Your task to perform on an android device: clear all cookies in the chrome app Image 0: 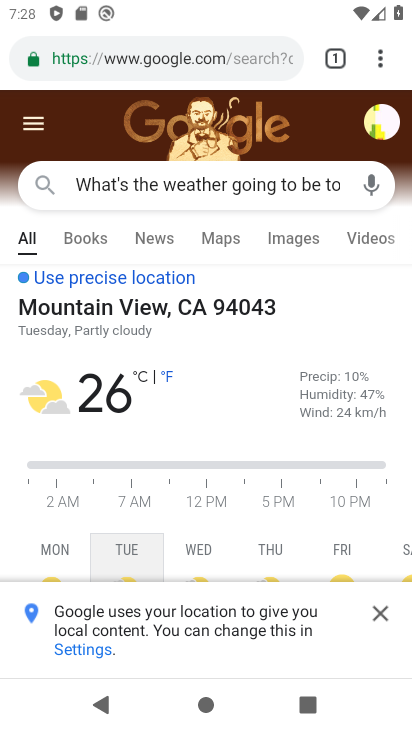
Step 0: click (377, 57)
Your task to perform on an android device: clear all cookies in the chrome app Image 1: 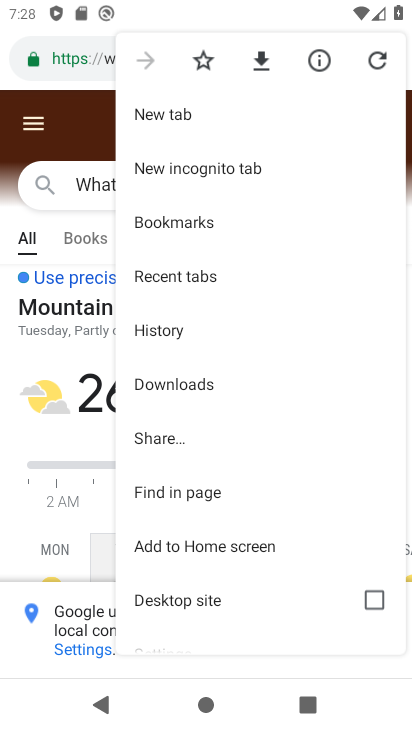
Step 1: drag from (201, 583) to (239, 265)
Your task to perform on an android device: clear all cookies in the chrome app Image 2: 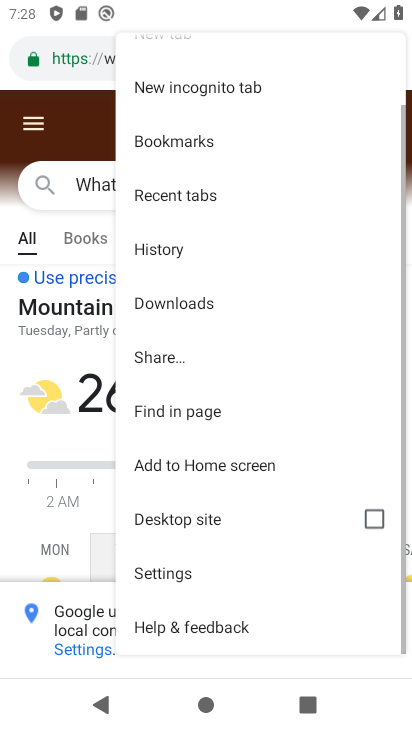
Step 2: click (179, 571)
Your task to perform on an android device: clear all cookies in the chrome app Image 3: 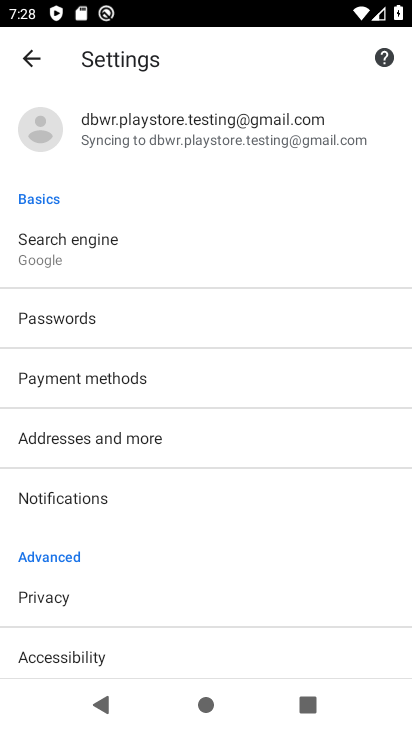
Step 3: click (83, 606)
Your task to perform on an android device: clear all cookies in the chrome app Image 4: 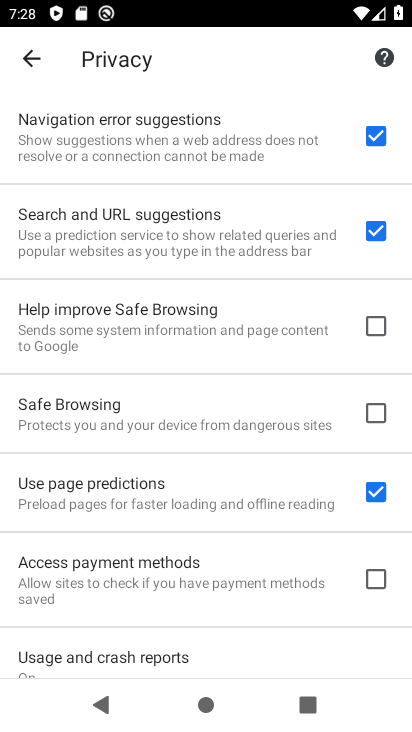
Step 4: drag from (136, 629) to (155, 228)
Your task to perform on an android device: clear all cookies in the chrome app Image 5: 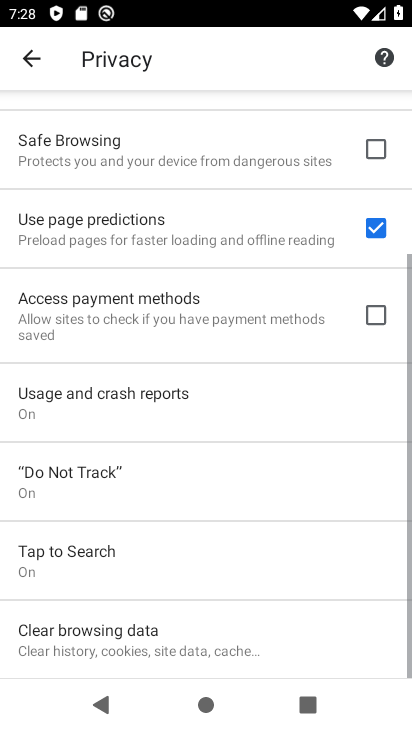
Step 5: click (113, 644)
Your task to perform on an android device: clear all cookies in the chrome app Image 6: 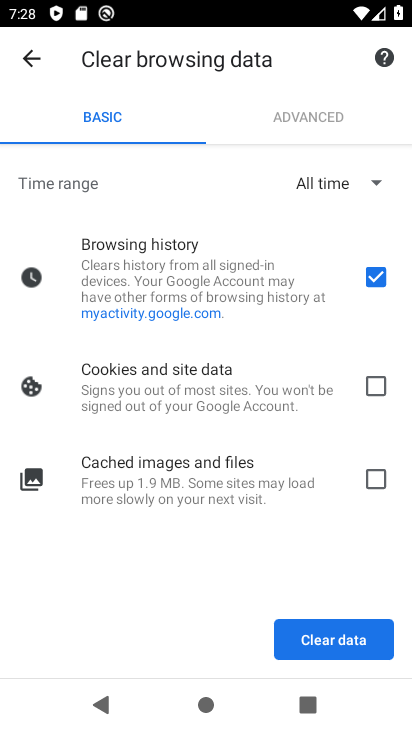
Step 6: click (328, 630)
Your task to perform on an android device: clear all cookies in the chrome app Image 7: 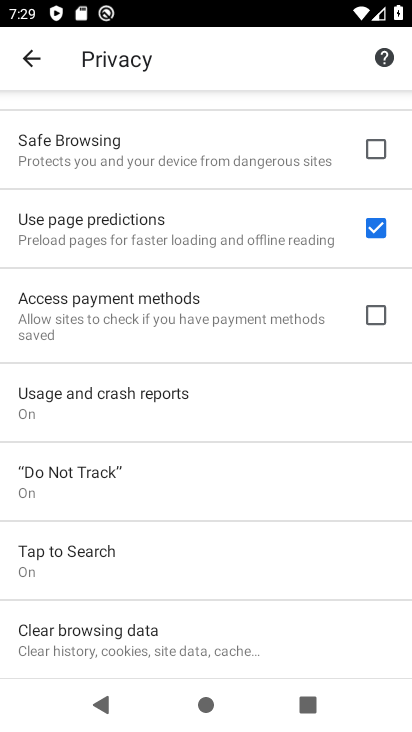
Step 7: task complete